Your task to perform on an android device: turn on showing notifications on the lock screen Image 0: 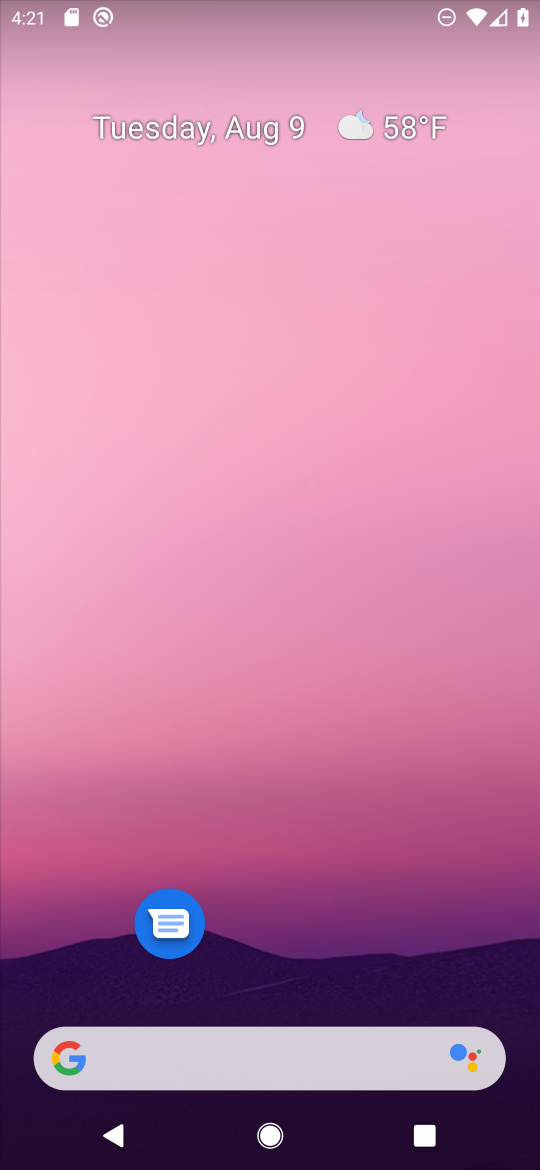
Step 0: drag from (299, 896) to (438, 87)
Your task to perform on an android device: turn on showing notifications on the lock screen Image 1: 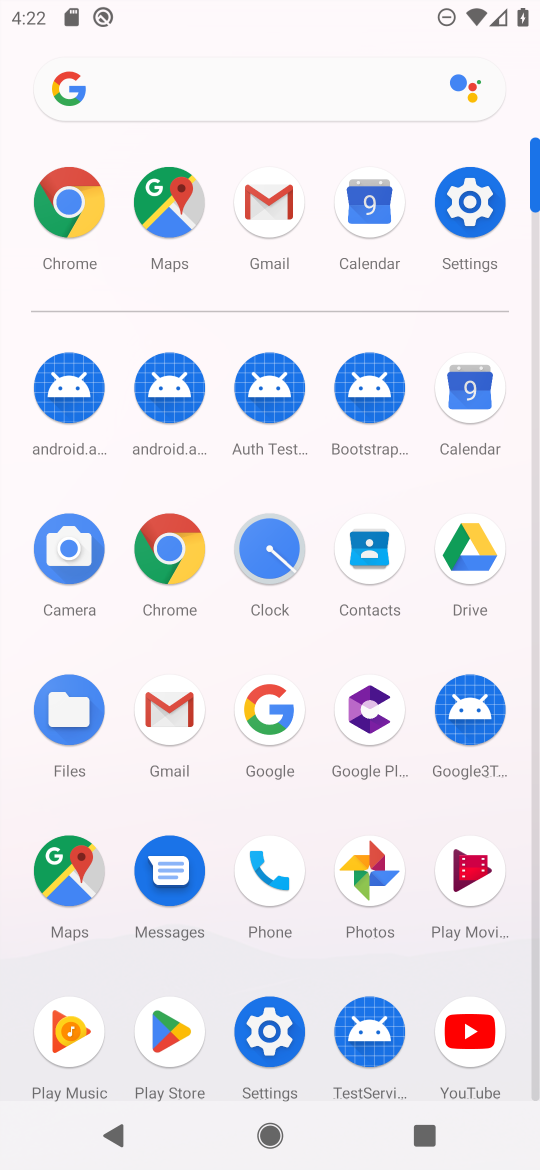
Step 1: click (473, 191)
Your task to perform on an android device: turn on showing notifications on the lock screen Image 2: 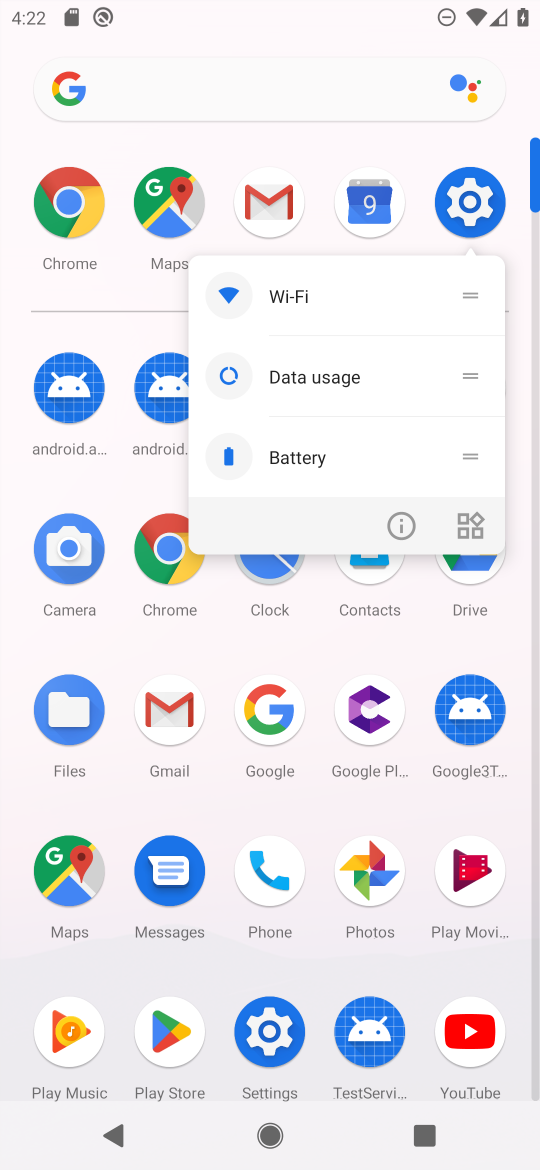
Step 2: click (460, 208)
Your task to perform on an android device: turn on showing notifications on the lock screen Image 3: 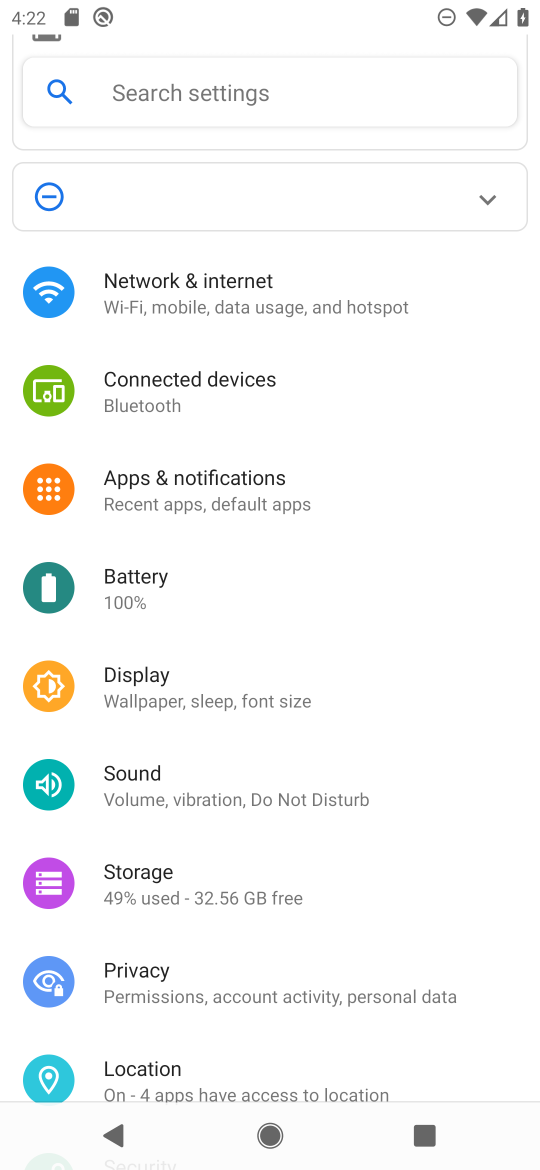
Step 3: drag from (315, 336) to (229, 1051)
Your task to perform on an android device: turn on showing notifications on the lock screen Image 4: 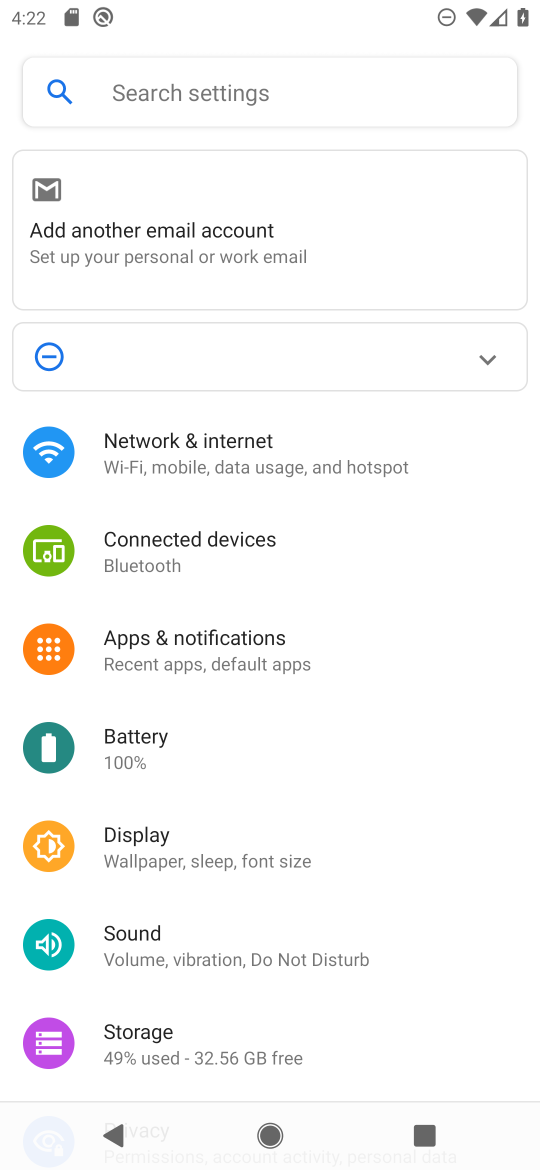
Step 4: click (195, 637)
Your task to perform on an android device: turn on showing notifications on the lock screen Image 5: 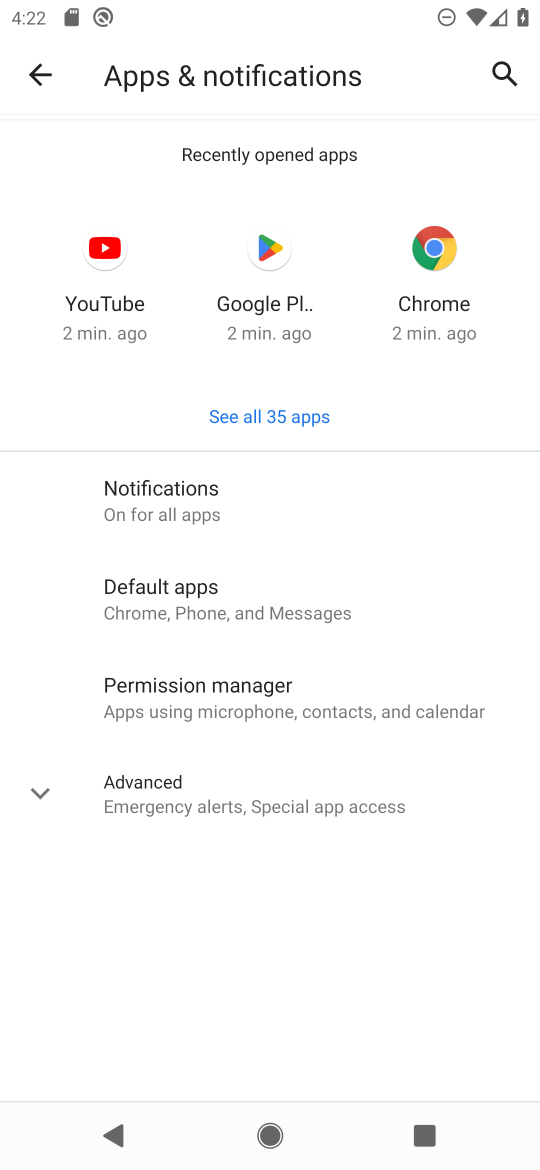
Step 5: click (185, 486)
Your task to perform on an android device: turn on showing notifications on the lock screen Image 6: 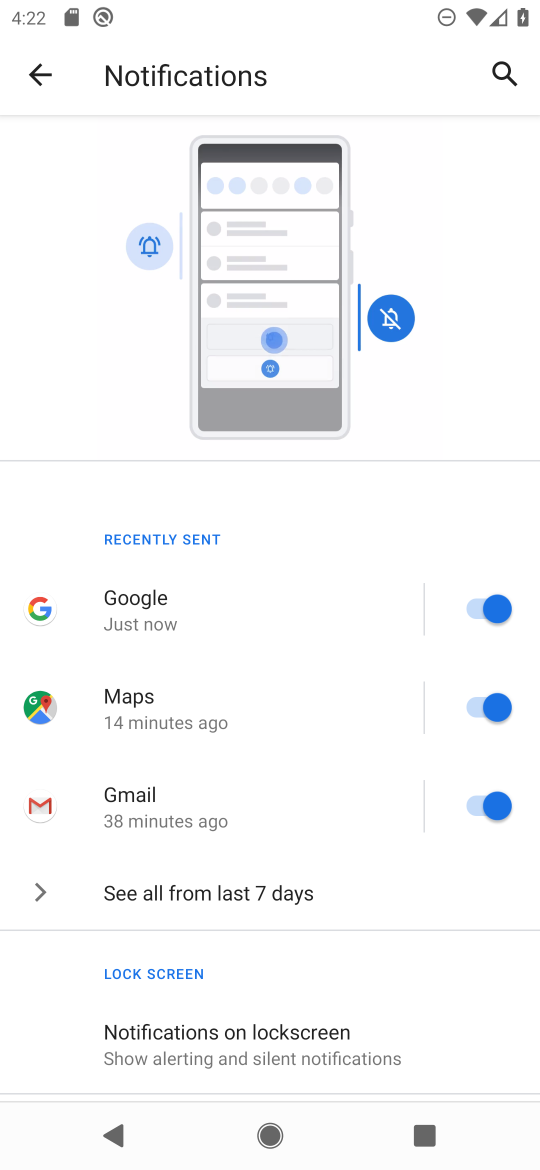
Step 6: click (262, 1044)
Your task to perform on an android device: turn on showing notifications on the lock screen Image 7: 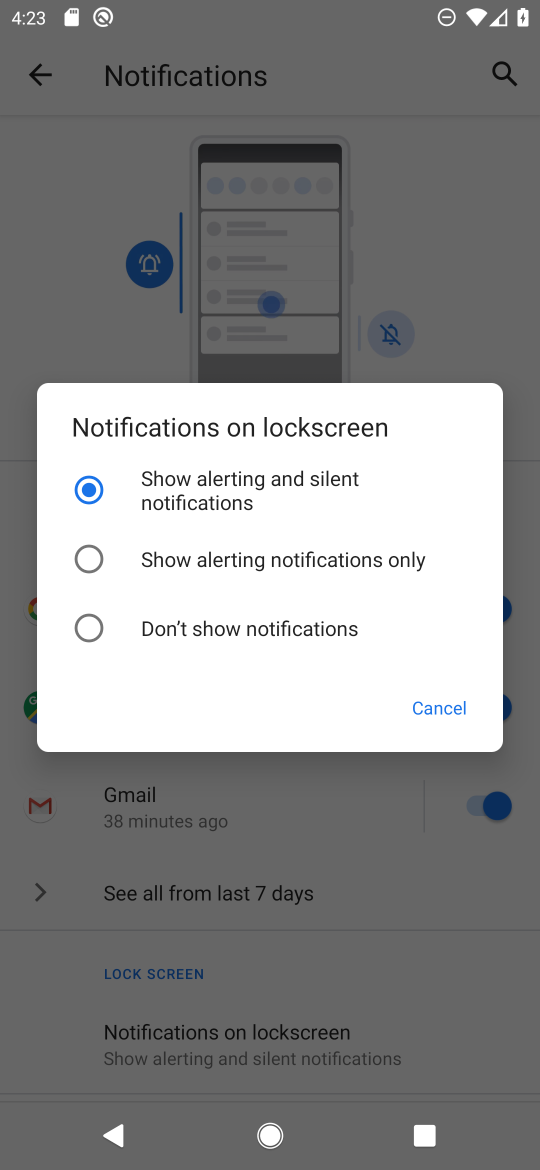
Step 7: task complete